Your task to perform on an android device: Open Google Chrome Image 0: 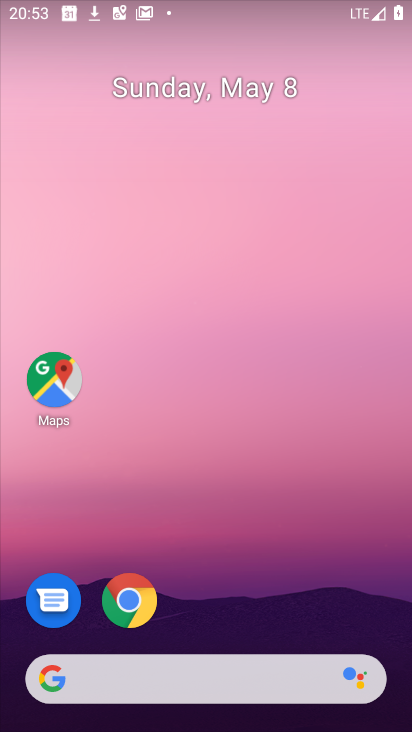
Step 0: drag from (293, 702) to (223, 233)
Your task to perform on an android device: Open Google Chrome Image 1: 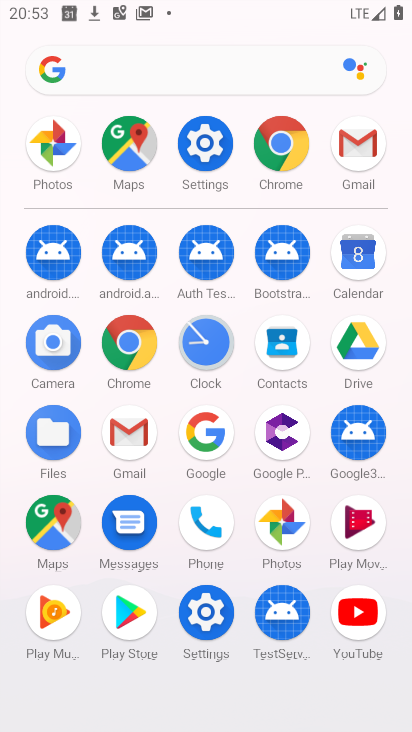
Step 1: click (296, 142)
Your task to perform on an android device: Open Google Chrome Image 2: 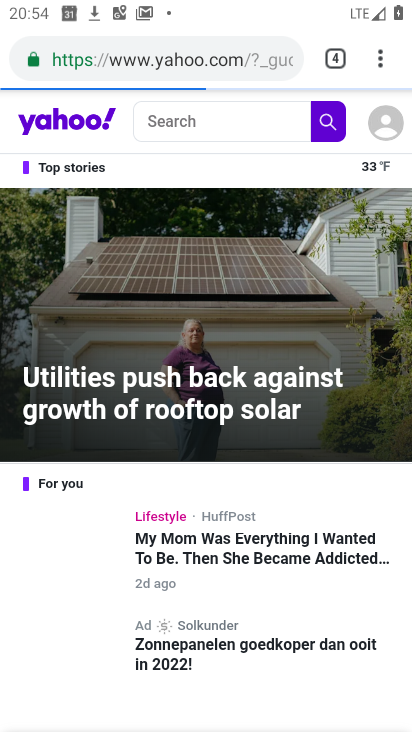
Step 2: click (329, 55)
Your task to perform on an android device: Open Google Chrome Image 3: 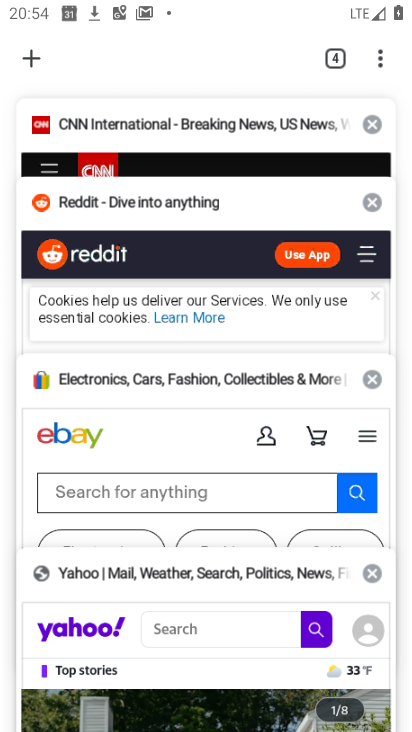
Step 3: click (30, 71)
Your task to perform on an android device: Open Google Chrome Image 4: 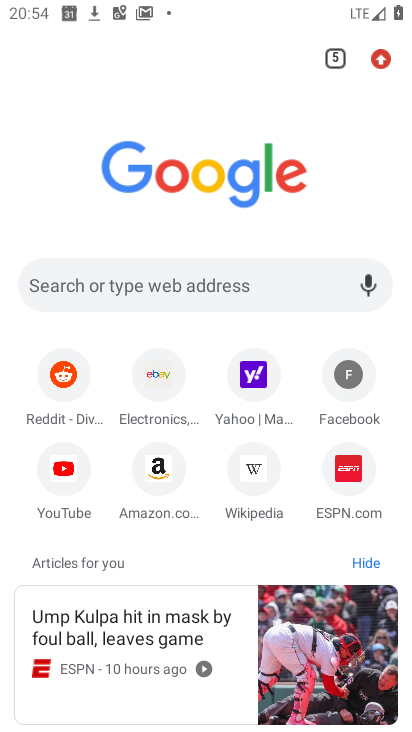
Step 4: task complete